Your task to perform on an android device: See recent photos Image 0: 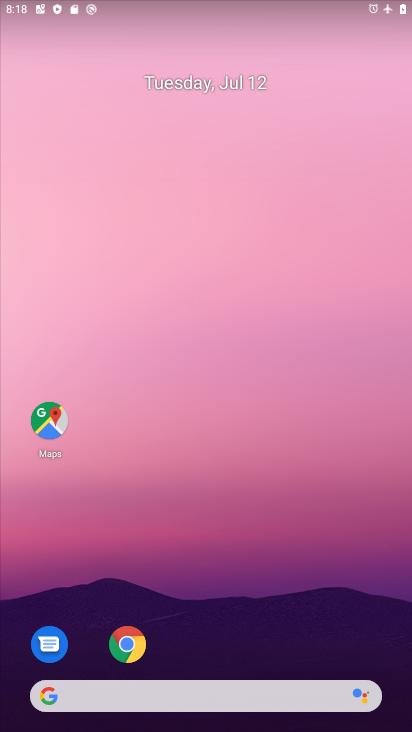
Step 0: drag from (176, 673) to (205, 327)
Your task to perform on an android device: See recent photos Image 1: 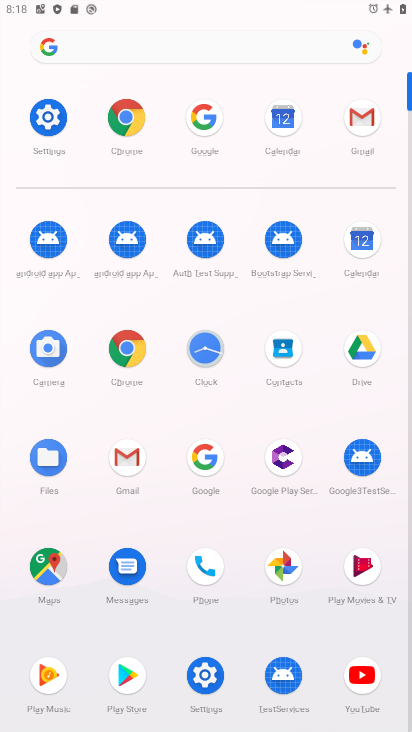
Step 1: click (277, 563)
Your task to perform on an android device: See recent photos Image 2: 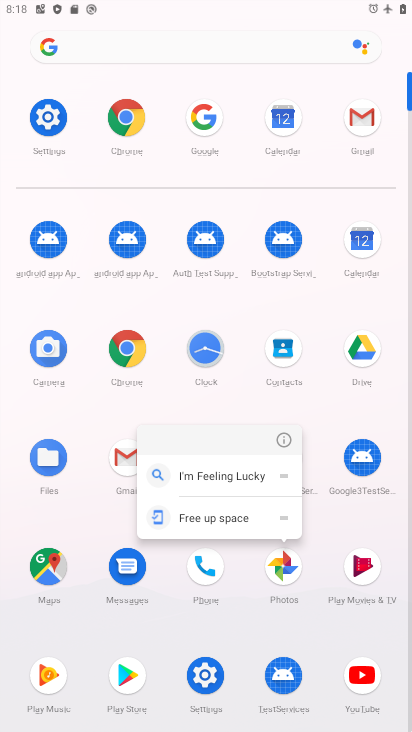
Step 2: click (277, 572)
Your task to perform on an android device: See recent photos Image 3: 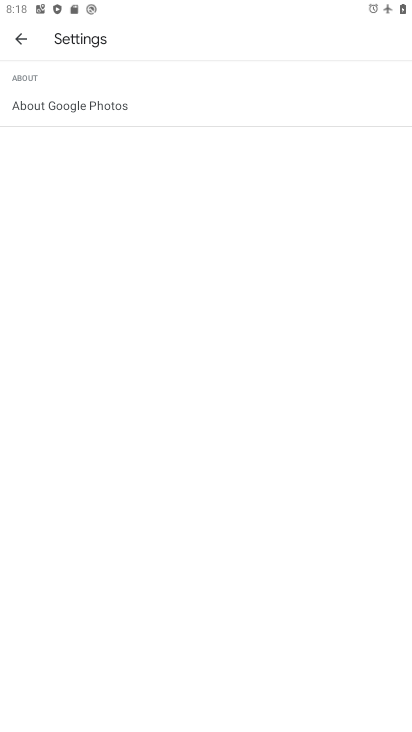
Step 3: click (20, 35)
Your task to perform on an android device: See recent photos Image 4: 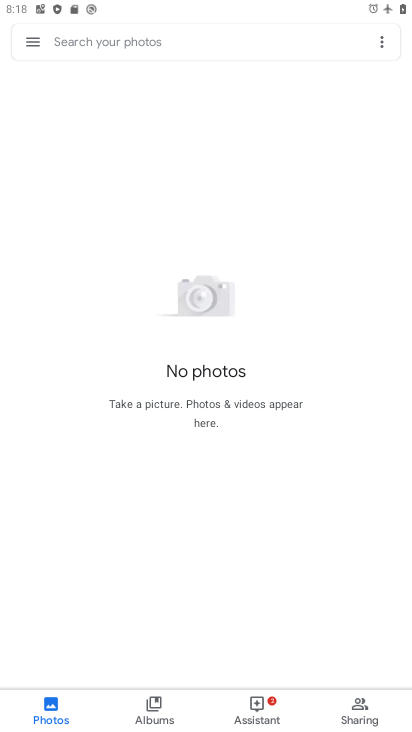
Step 4: task complete